Your task to perform on an android device: Open calendar and show me the fourth week of next month Image 0: 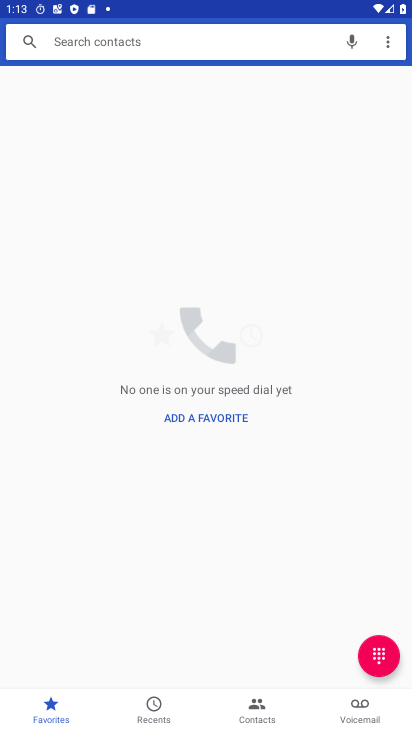
Step 0: press home button
Your task to perform on an android device: Open calendar and show me the fourth week of next month Image 1: 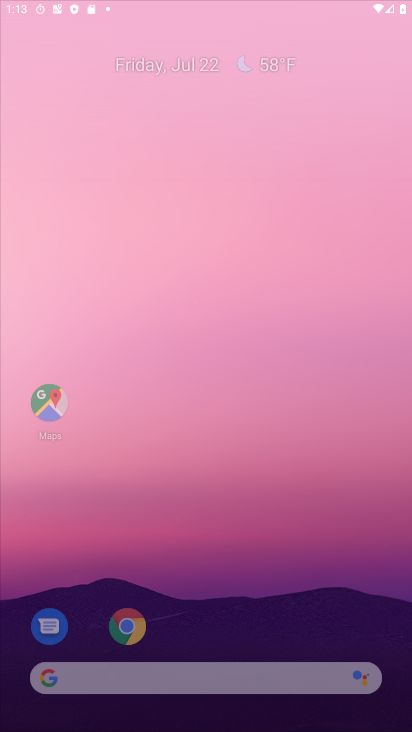
Step 1: drag from (252, 511) to (265, 135)
Your task to perform on an android device: Open calendar and show me the fourth week of next month Image 2: 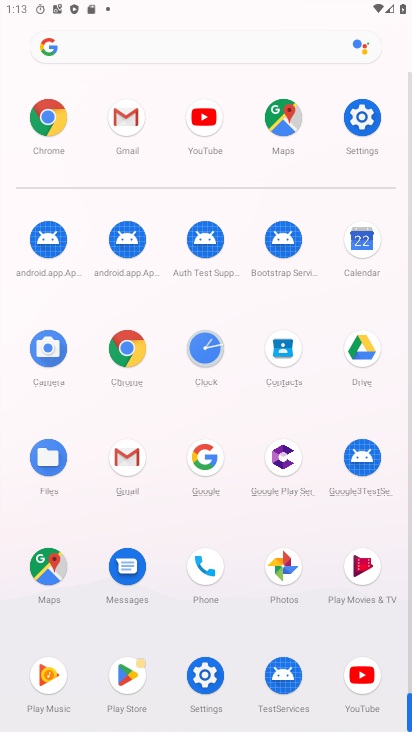
Step 2: click (375, 238)
Your task to perform on an android device: Open calendar and show me the fourth week of next month Image 3: 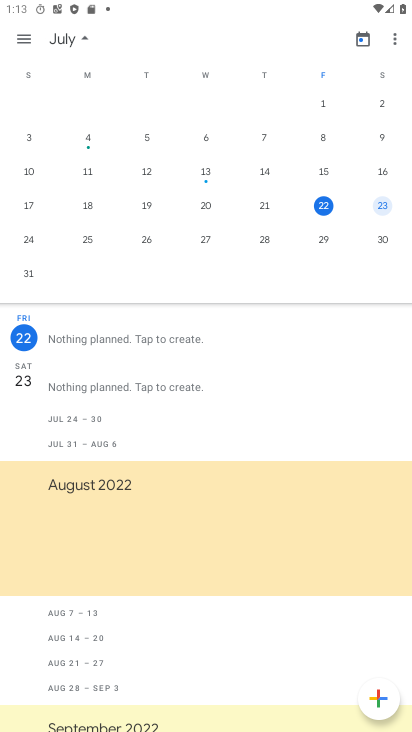
Step 3: drag from (370, 177) to (11, 190)
Your task to perform on an android device: Open calendar and show me the fourth week of next month Image 4: 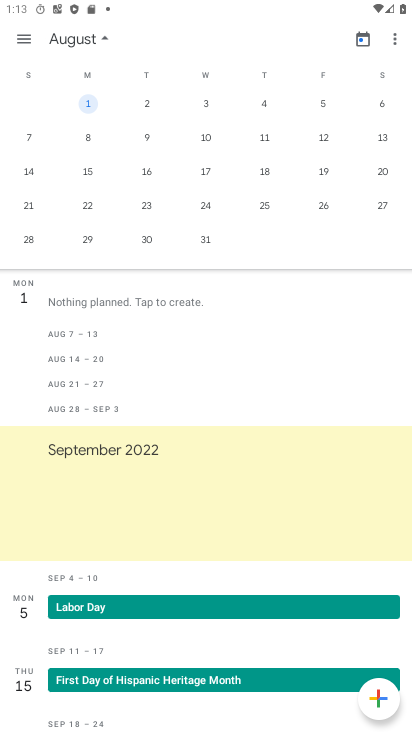
Step 4: click (141, 205)
Your task to perform on an android device: Open calendar and show me the fourth week of next month Image 5: 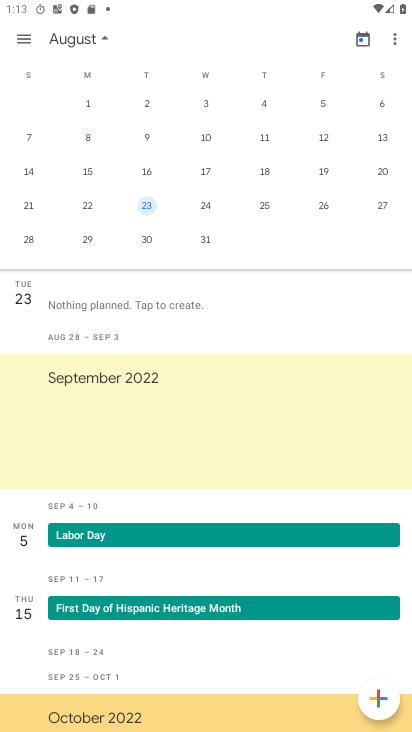
Step 5: task complete